Your task to perform on an android device: see sites visited before in the chrome app Image 0: 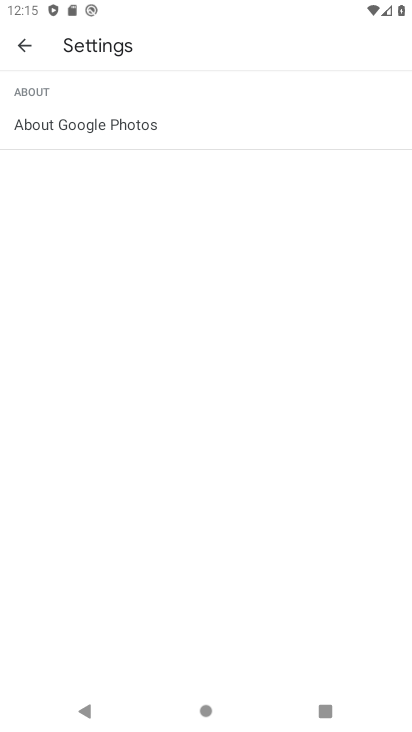
Step 0: press home button
Your task to perform on an android device: see sites visited before in the chrome app Image 1: 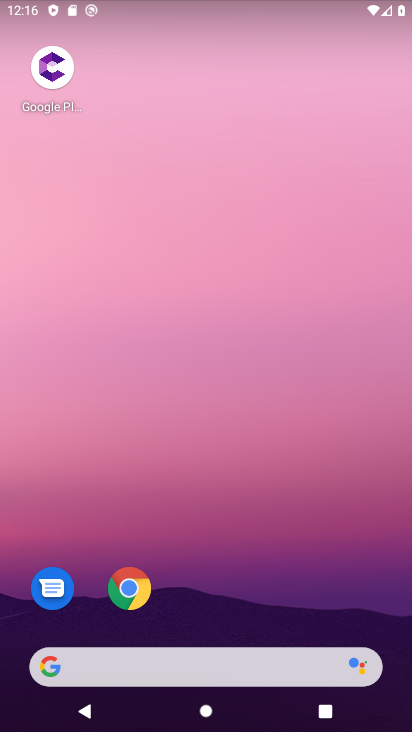
Step 1: click (132, 581)
Your task to perform on an android device: see sites visited before in the chrome app Image 2: 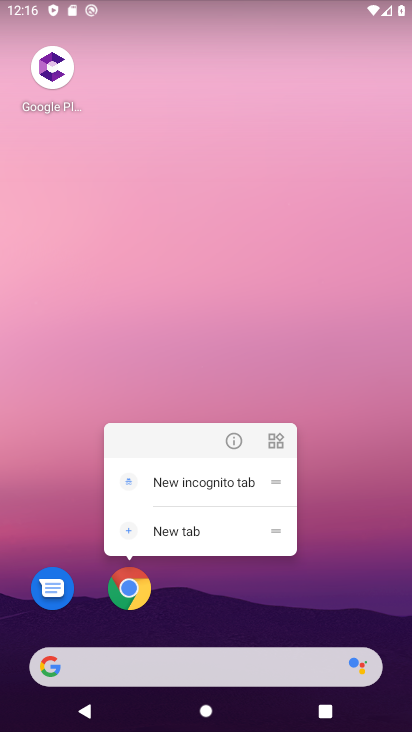
Step 2: click (132, 580)
Your task to perform on an android device: see sites visited before in the chrome app Image 3: 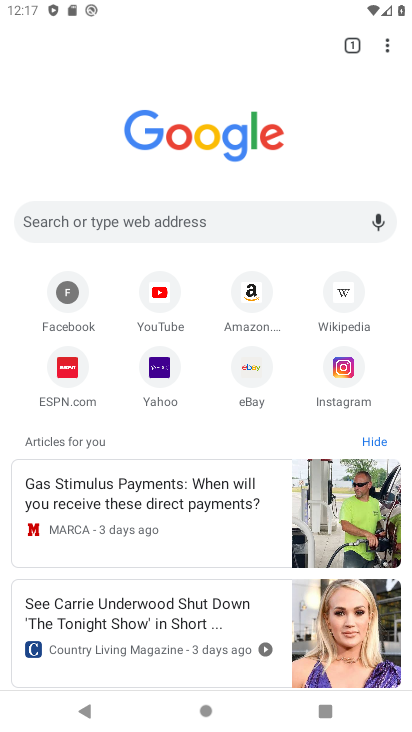
Step 3: click (386, 41)
Your task to perform on an android device: see sites visited before in the chrome app Image 4: 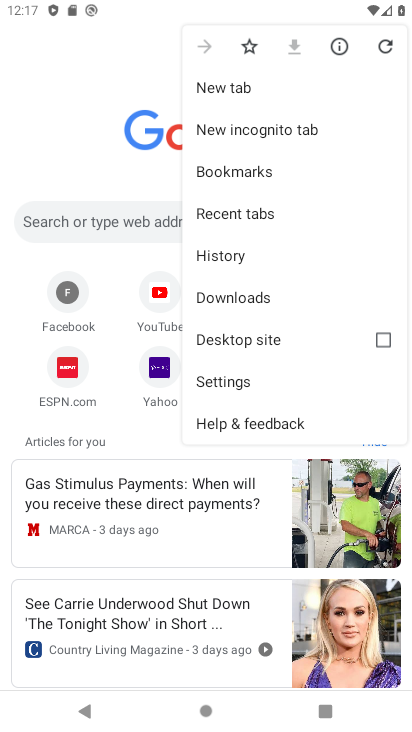
Step 4: click (267, 216)
Your task to perform on an android device: see sites visited before in the chrome app Image 5: 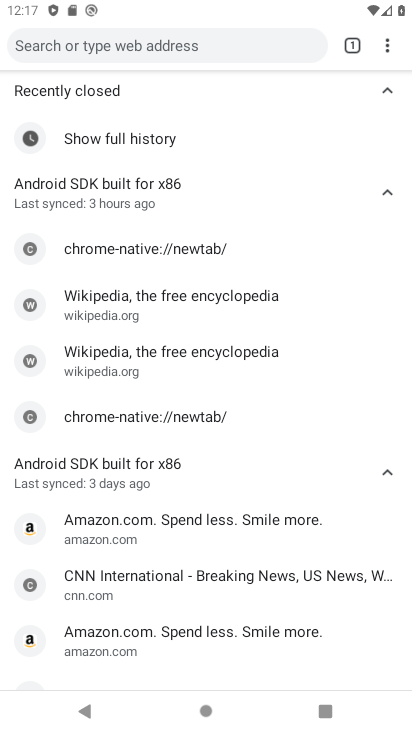
Step 5: task complete